Your task to perform on an android device: change the upload size in google photos Image 0: 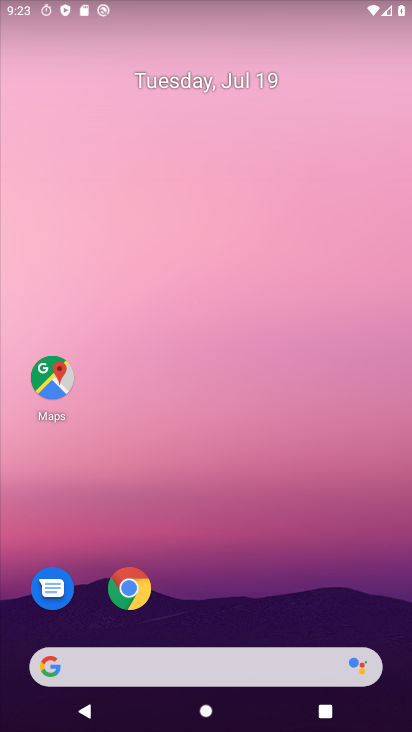
Step 0: press home button
Your task to perform on an android device: change the upload size in google photos Image 1: 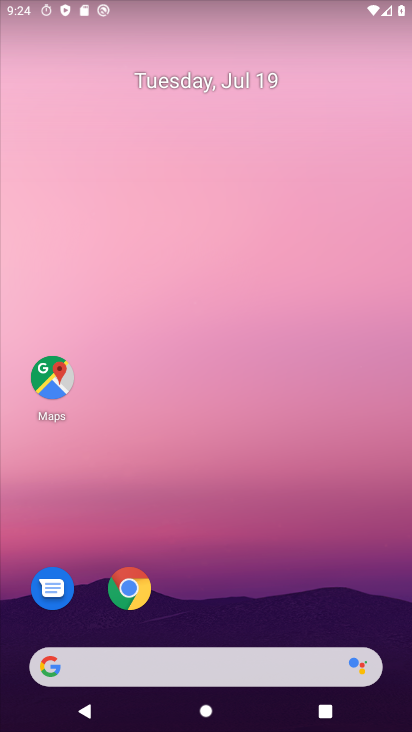
Step 1: drag from (206, 626) to (237, 95)
Your task to perform on an android device: change the upload size in google photos Image 2: 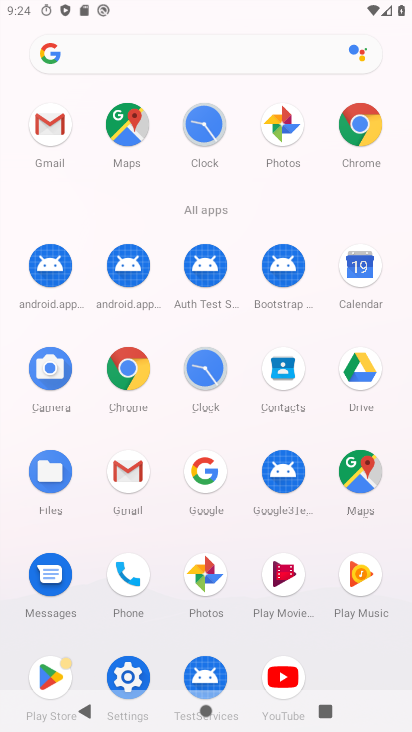
Step 2: click (203, 570)
Your task to perform on an android device: change the upload size in google photos Image 3: 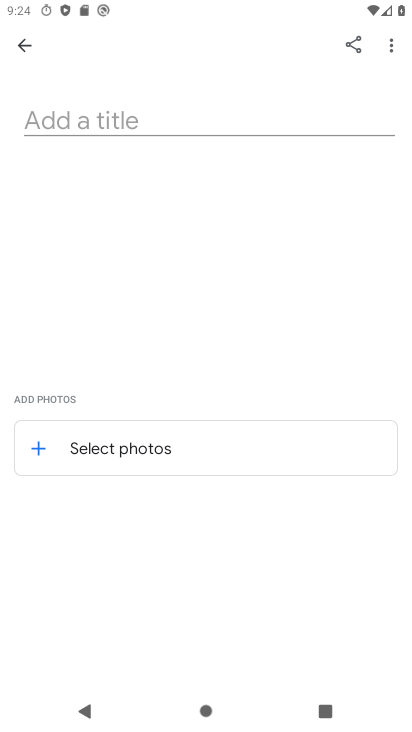
Step 3: click (25, 40)
Your task to perform on an android device: change the upload size in google photos Image 4: 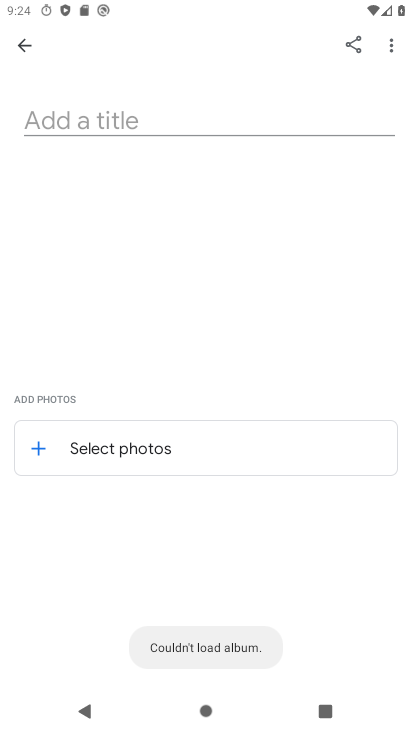
Step 4: click (23, 50)
Your task to perform on an android device: change the upload size in google photos Image 5: 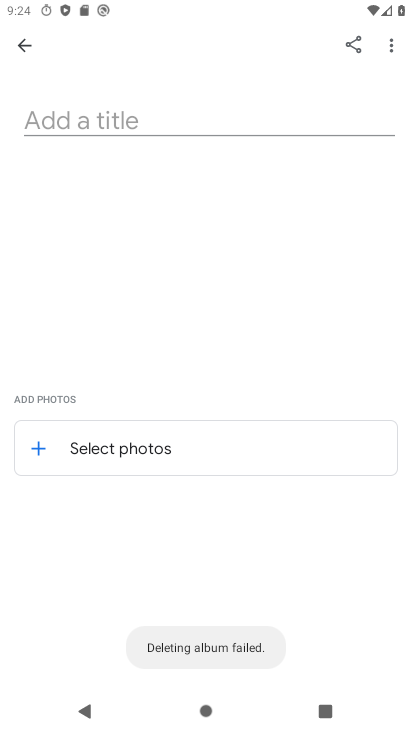
Step 5: task complete